Your task to perform on an android device: Open calendar and show me the second week of next month Image 0: 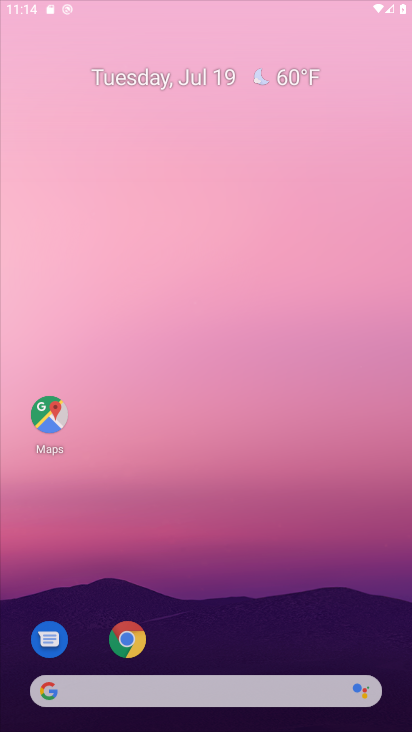
Step 0: press home button
Your task to perform on an android device: Open calendar and show me the second week of next month Image 1: 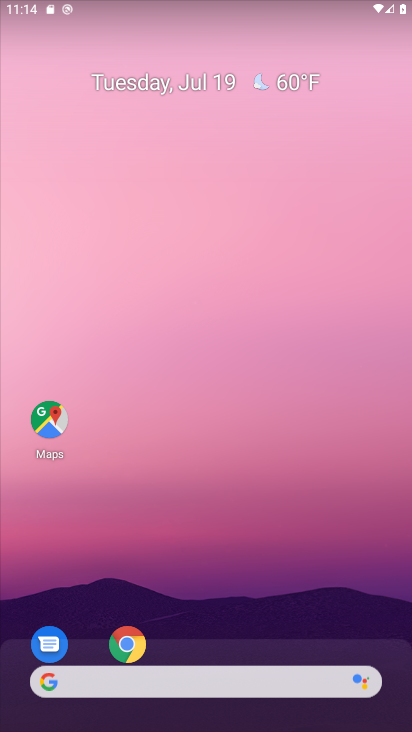
Step 1: drag from (270, 502) to (297, 308)
Your task to perform on an android device: Open calendar and show me the second week of next month Image 2: 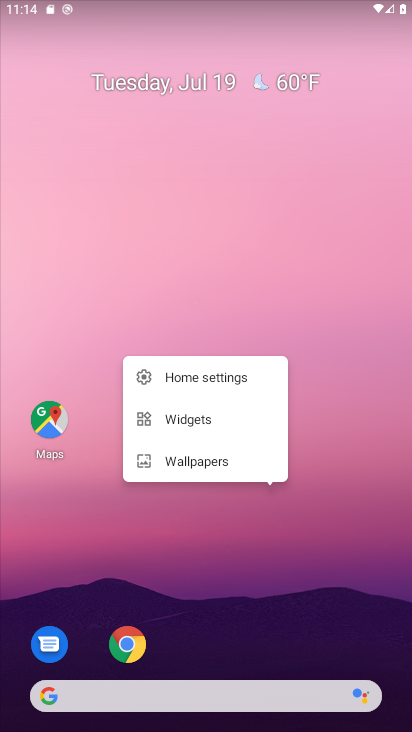
Step 2: click (282, 631)
Your task to perform on an android device: Open calendar and show me the second week of next month Image 3: 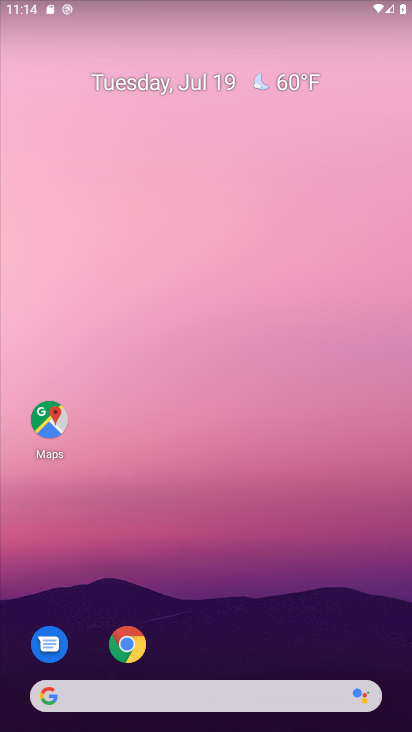
Step 3: drag from (353, 661) to (408, 177)
Your task to perform on an android device: Open calendar and show me the second week of next month Image 4: 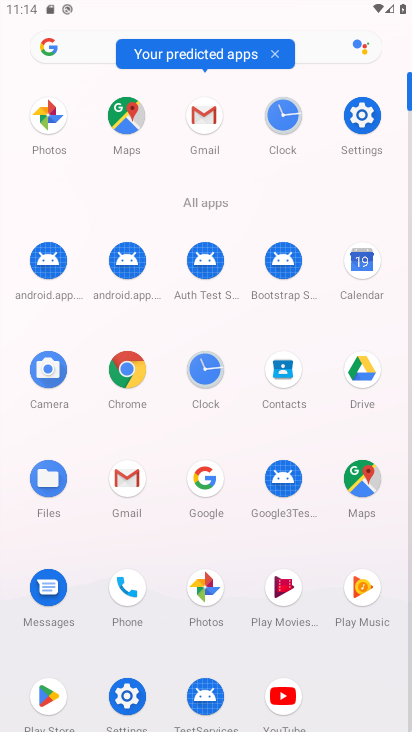
Step 4: click (365, 275)
Your task to perform on an android device: Open calendar and show me the second week of next month Image 5: 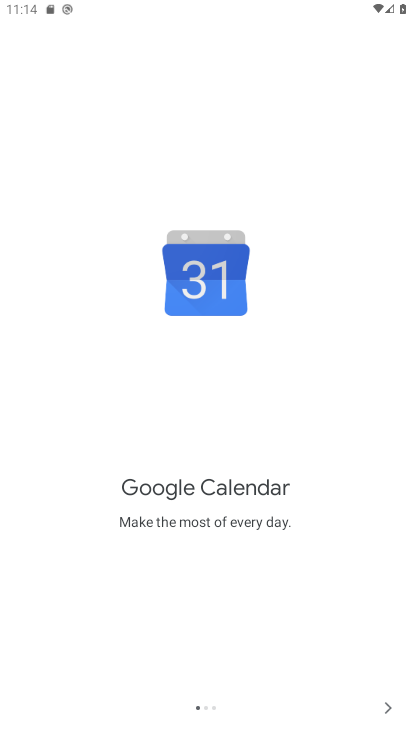
Step 5: click (385, 702)
Your task to perform on an android device: Open calendar and show me the second week of next month Image 6: 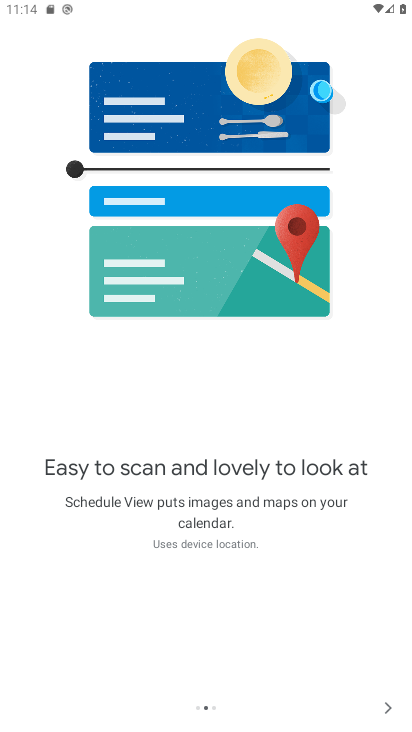
Step 6: click (385, 702)
Your task to perform on an android device: Open calendar and show me the second week of next month Image 7: 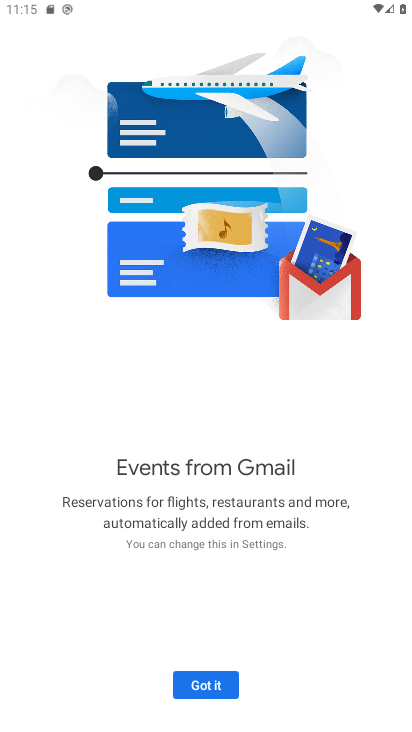
Step 7: click (217, 684)
Your task to perform on an android device: Open calendar and show me the second week of next month Image 8: 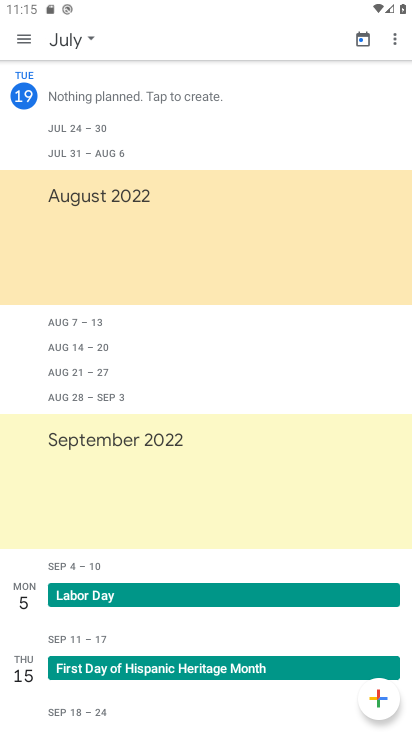
Step 8: click (19, 38)
Your task to perform on an android device: Open calendar and show me the second week of next month Image 9: 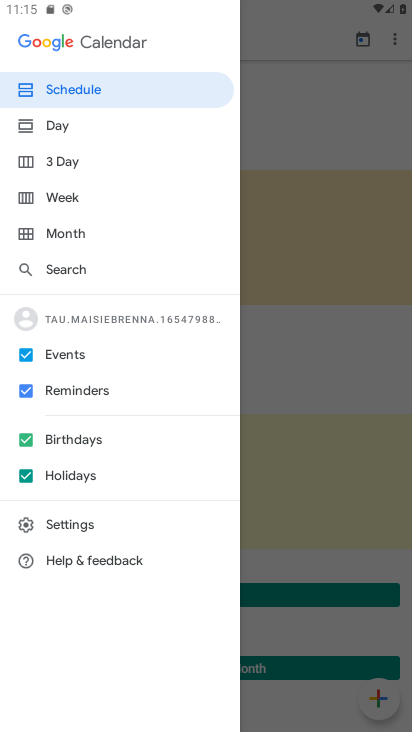
Step 9: click (62, 241)
Your task to perform on an android device: Open calendar and show me the second week of next month Image 10: 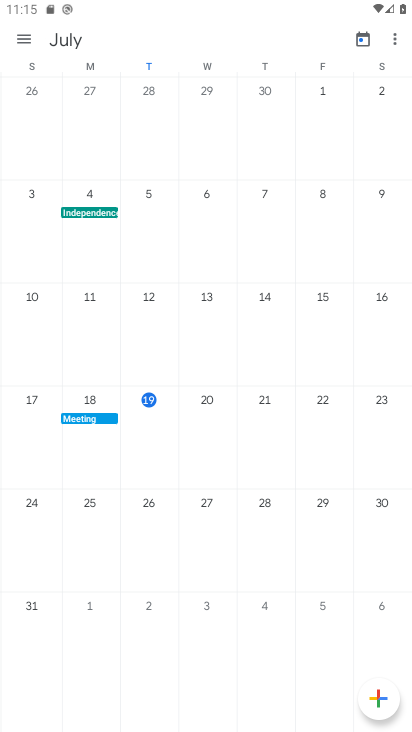
Step 10: drag from (385, 333) to (4, 339)
Your task to perform on an android device: Open calendar and show me the second week of next month Image 11: 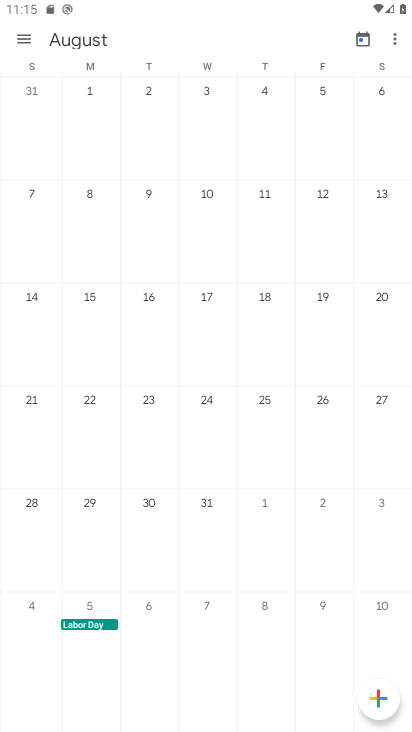
Step 11: click (81, 217)
Your task to perform on an android device: Open calendar and show me the second week of next month Image 12: 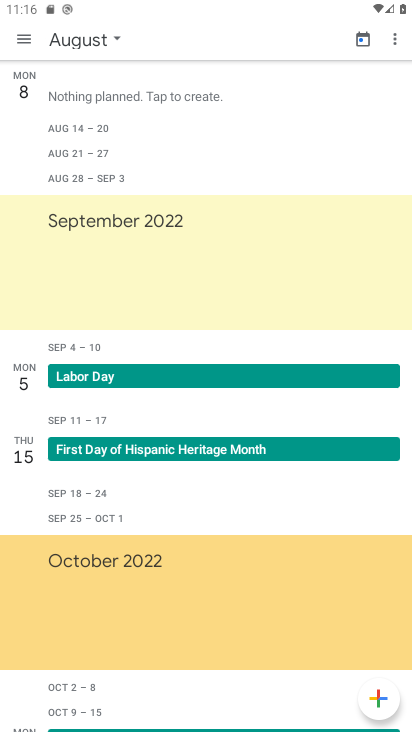
Step 12: task complete